Your task to perform on an android device: Open the calendar and show me this week's events? Image 0: 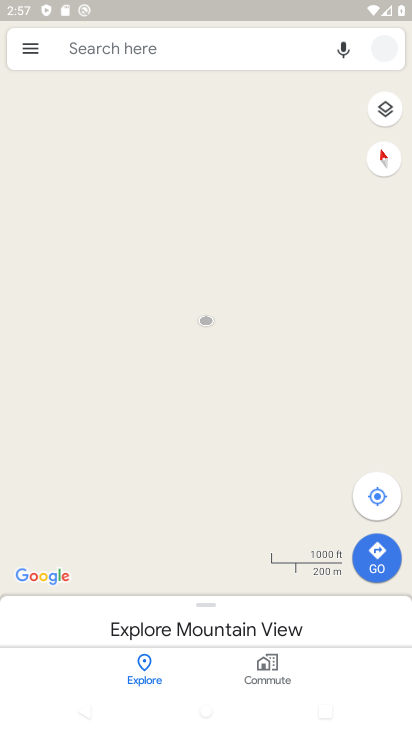
Step 0: click (289, 177)
Your task to perform on an android device: Open the calendar and show me this week's events? Image 1: 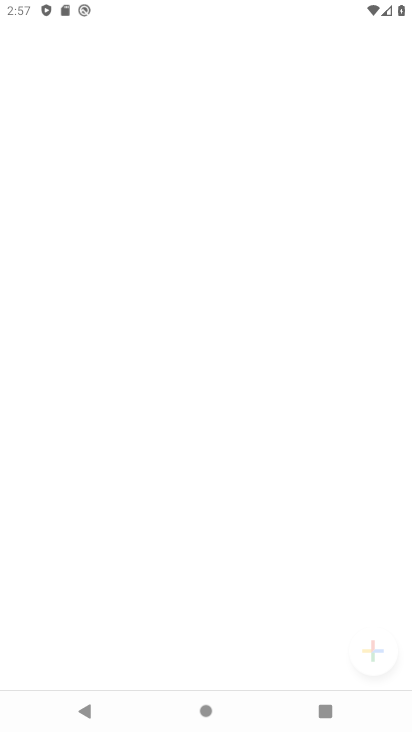
Step 1: drag from (263, 682) to (297, 422)
Your task to perform on an android device: Open the calendar and show me this week's events? Image 2: 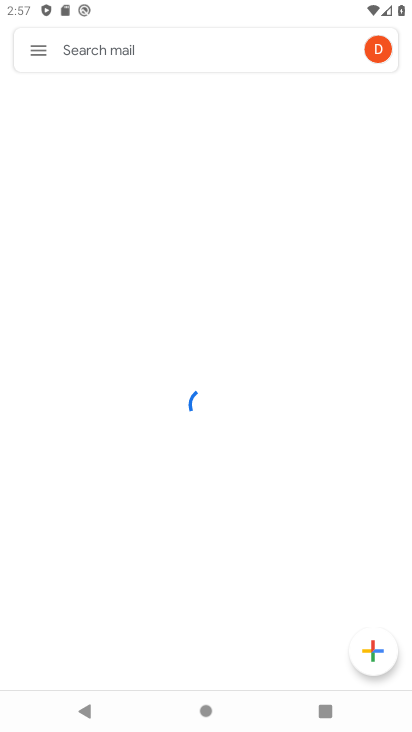
Step 2: press home button
Your task to perform on an android device: Open the calendar and show me this week's events? Image 3: 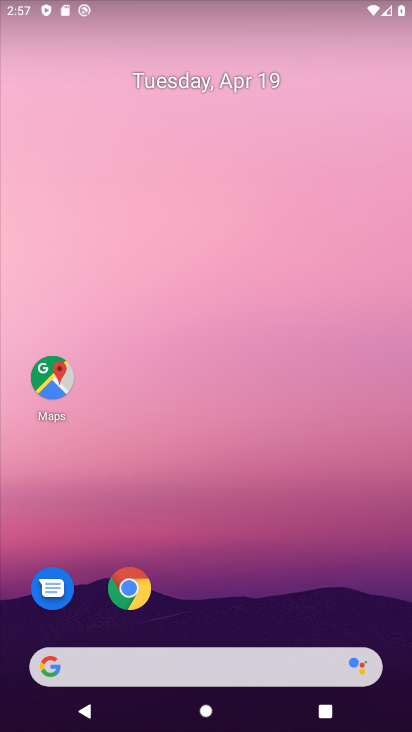
Step 3: drag from (331, 694) to (315, 145)
Your task to perform on an android device: Open the calendar and show me this week's events? Image 4: 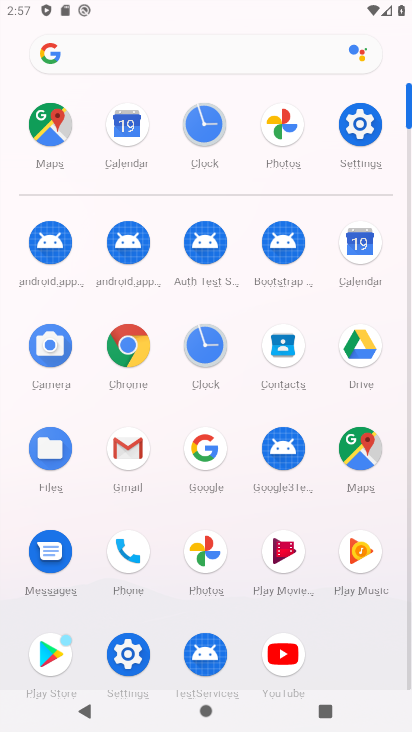
Step 4: click (356, 242)
Your task to perform on an android device: Open the calendar and show me this week's events? Image 5: 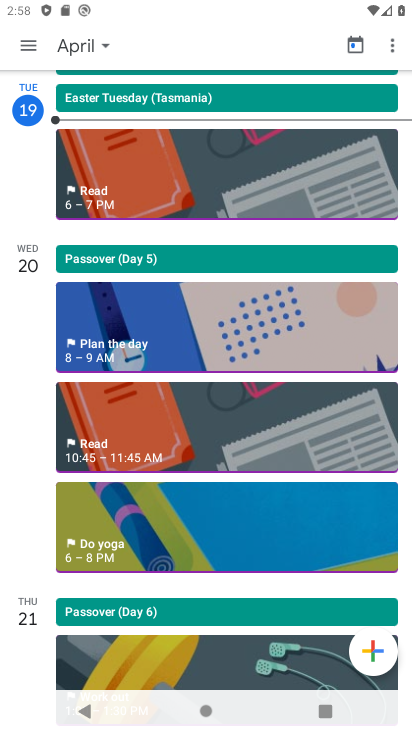
Step 5: click (27, 47)
Your task to perform on an android device: Open the calendar and show me this week's events? Image 6: 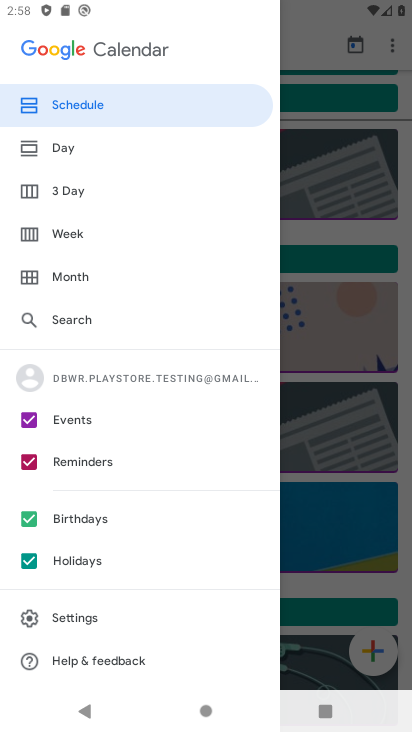
Step 6: click (74, 233)
Your task to perform on an android device: Open the calendar and show me this week's events? Image 7: 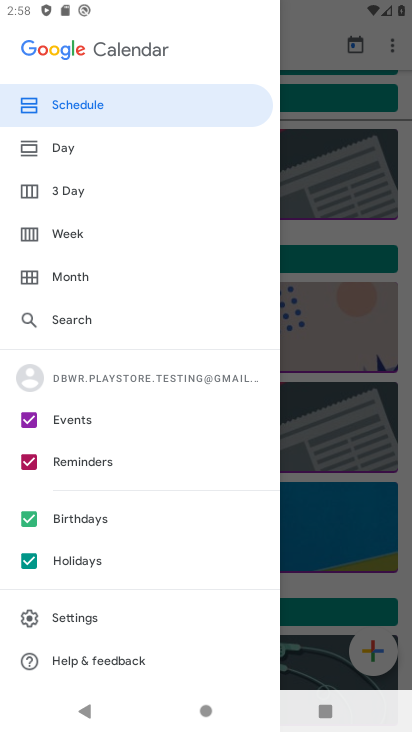
Step 7: click (71, 227)
Your task to perform on an android device: Open the calendar and show me this week's events? Image 8: 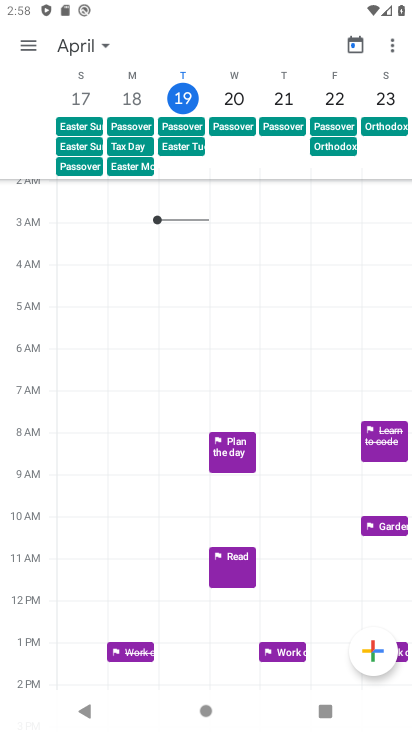
Step 8: task complete